Your task to perform on an android device: Search for a new bronzer Image 0: 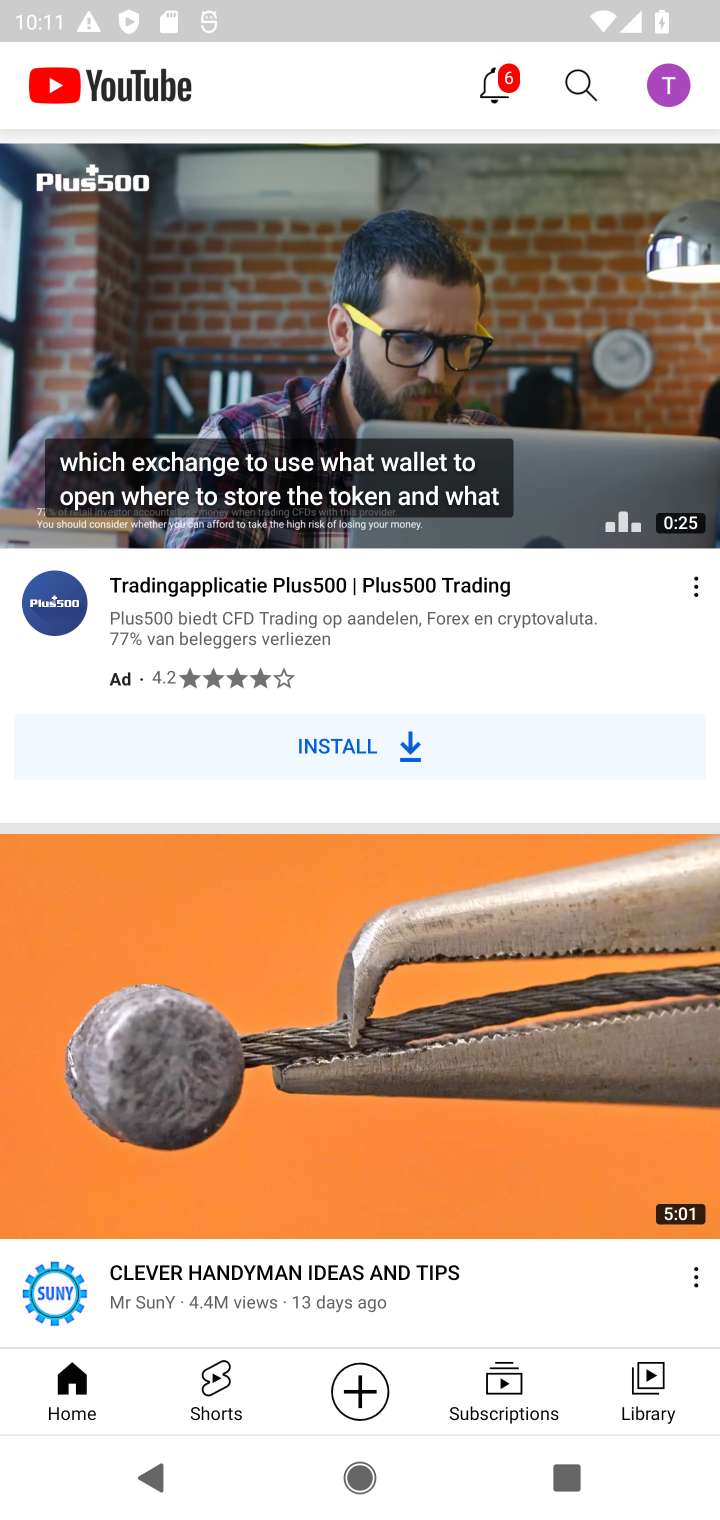
Step 0: press home button
Your task to perform on an android device: Search for a new bronzer Image 1: 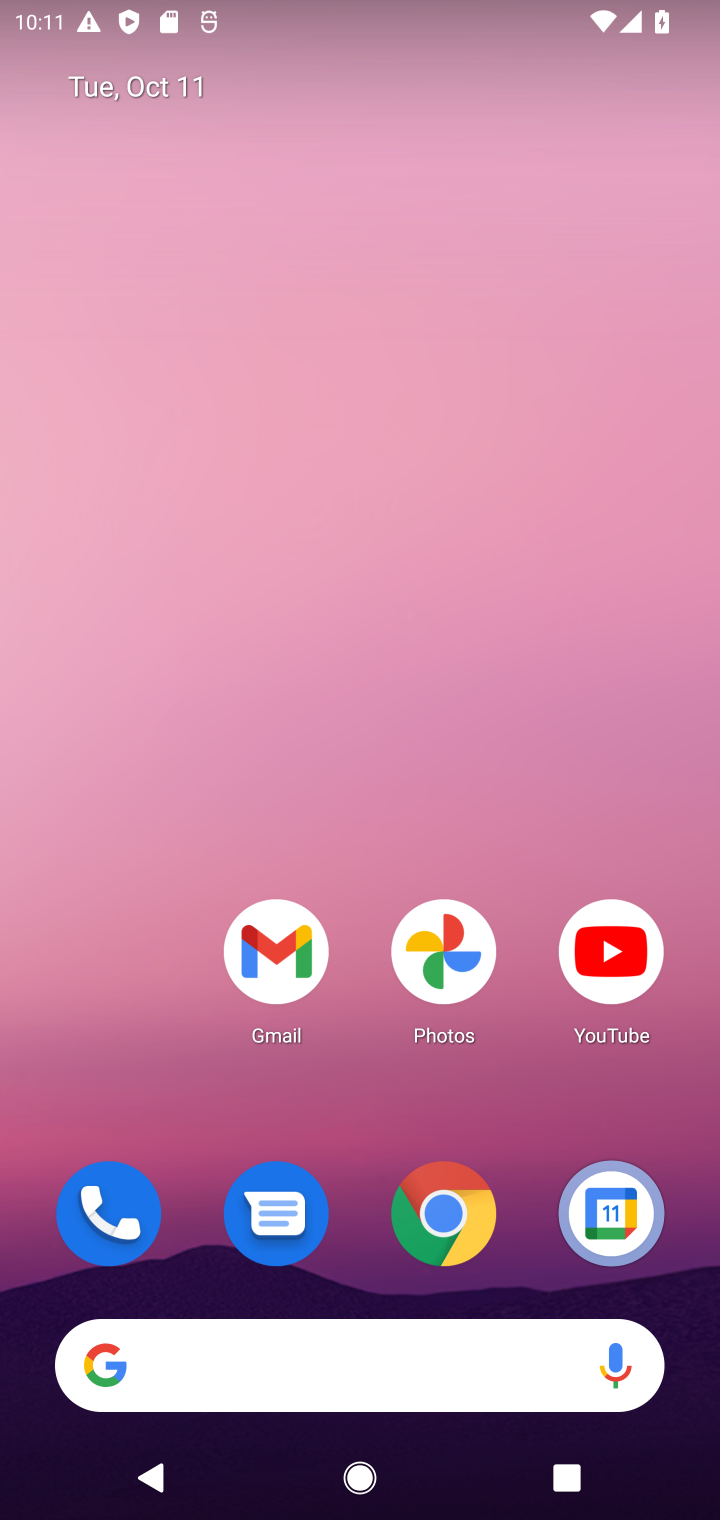
Step 1: click (411, 1242)
Your task to perform on an android device: Search for a new bronzer Image 2: 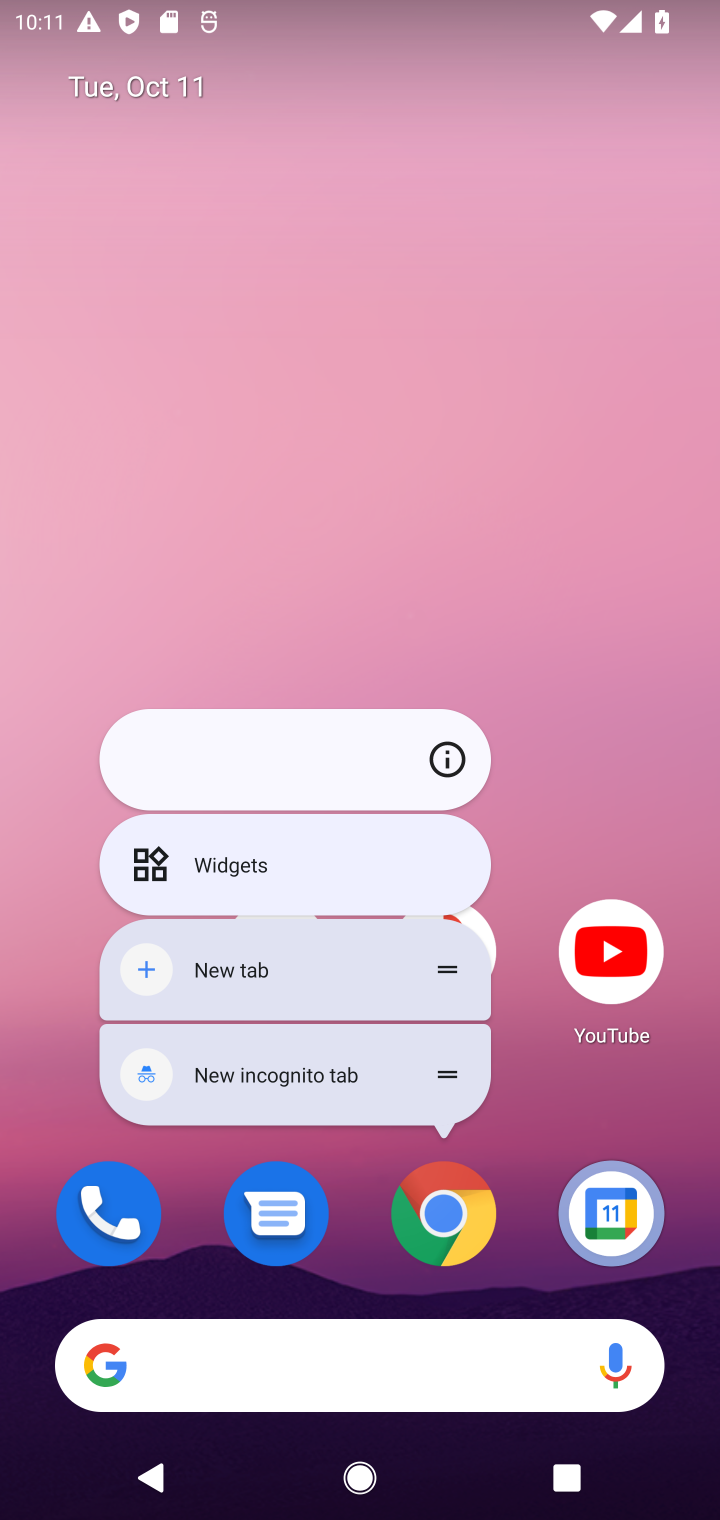
Step 2: click (441, 1200)
Your task to perform on an android device: Search for a new bronzer Image 3: 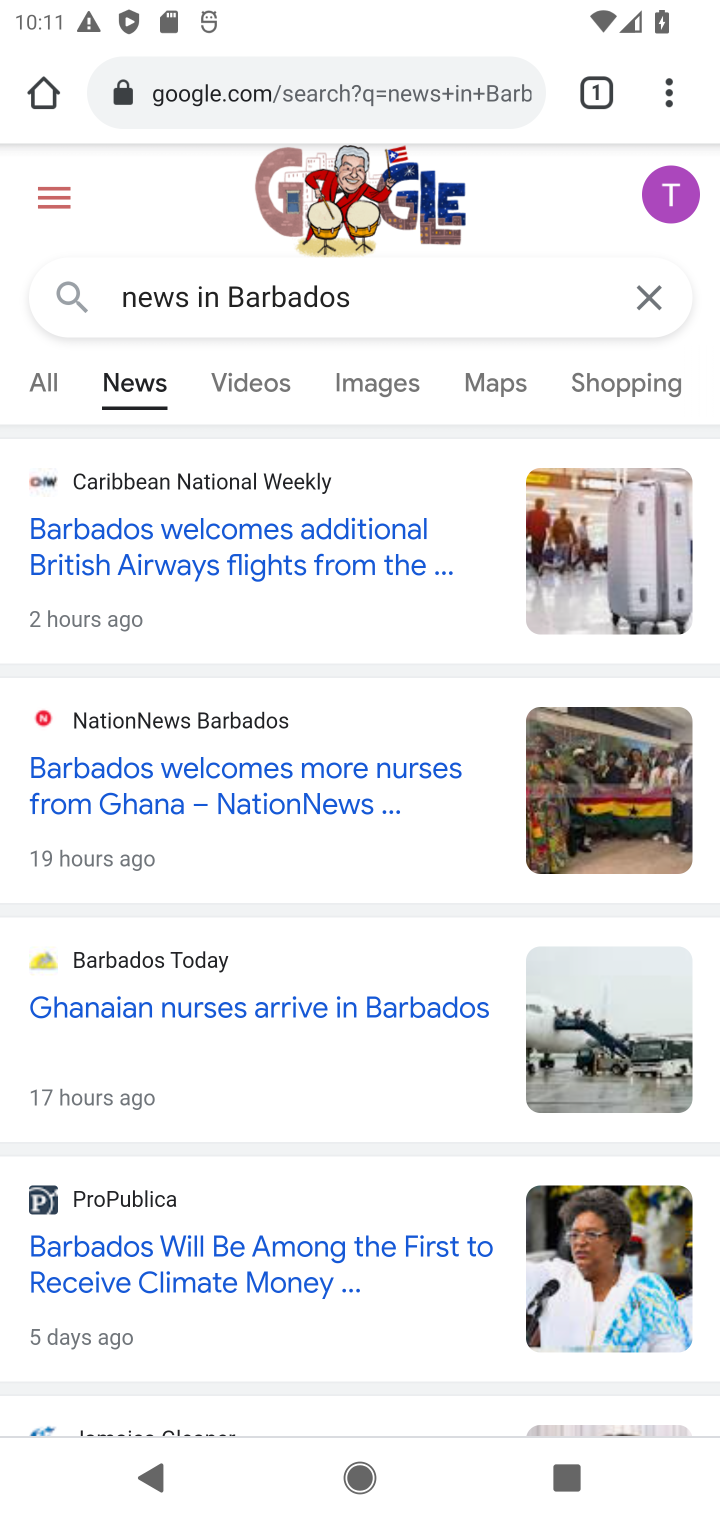
Step 3: click (418, 95)
Your task to perform on an android device: Search for a new bronzer Image 4: 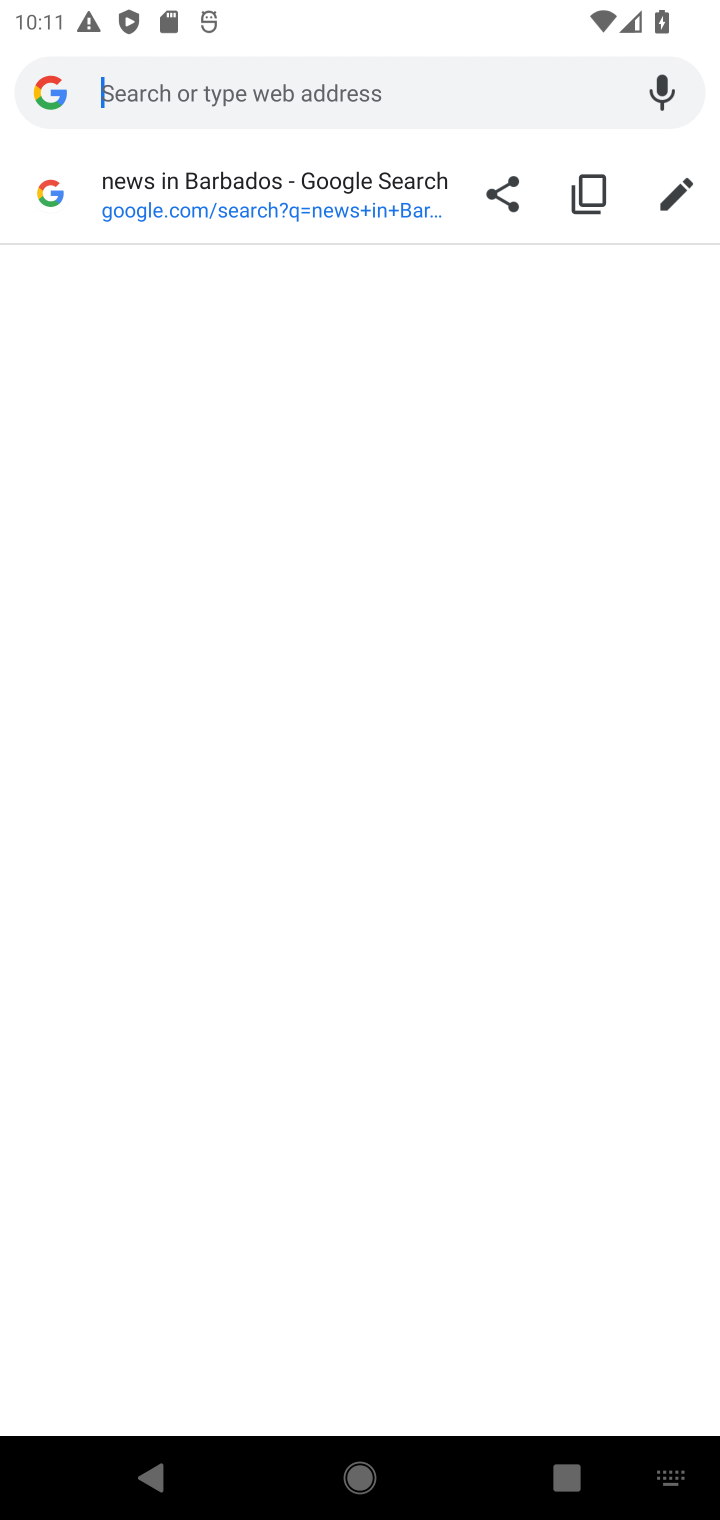
Step 4: type "new bronzer"
Your task to perform on an android device: Search for a new bronzer Image 5: 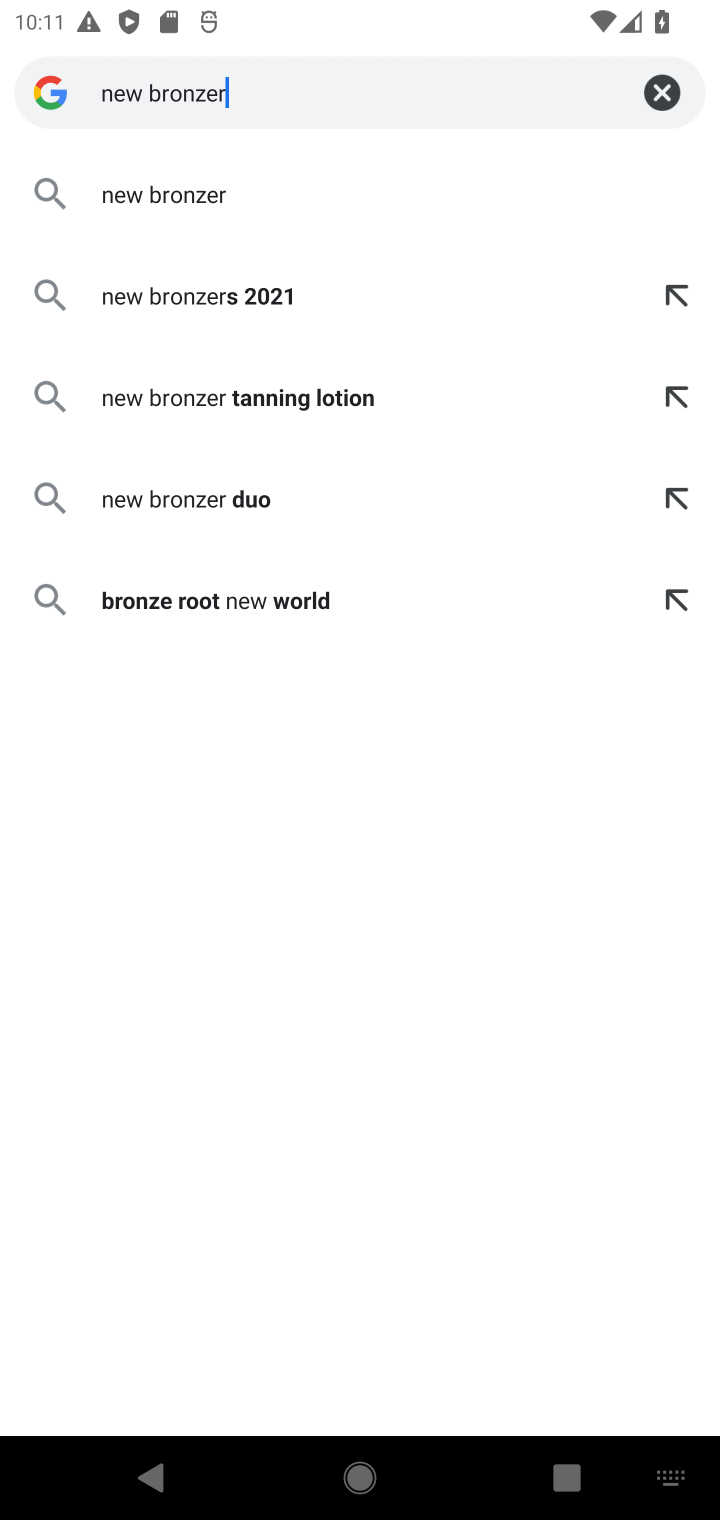
Step 5: click (248, 193)
Your task to perform on an android device: Search for a new bronzer Image 6: 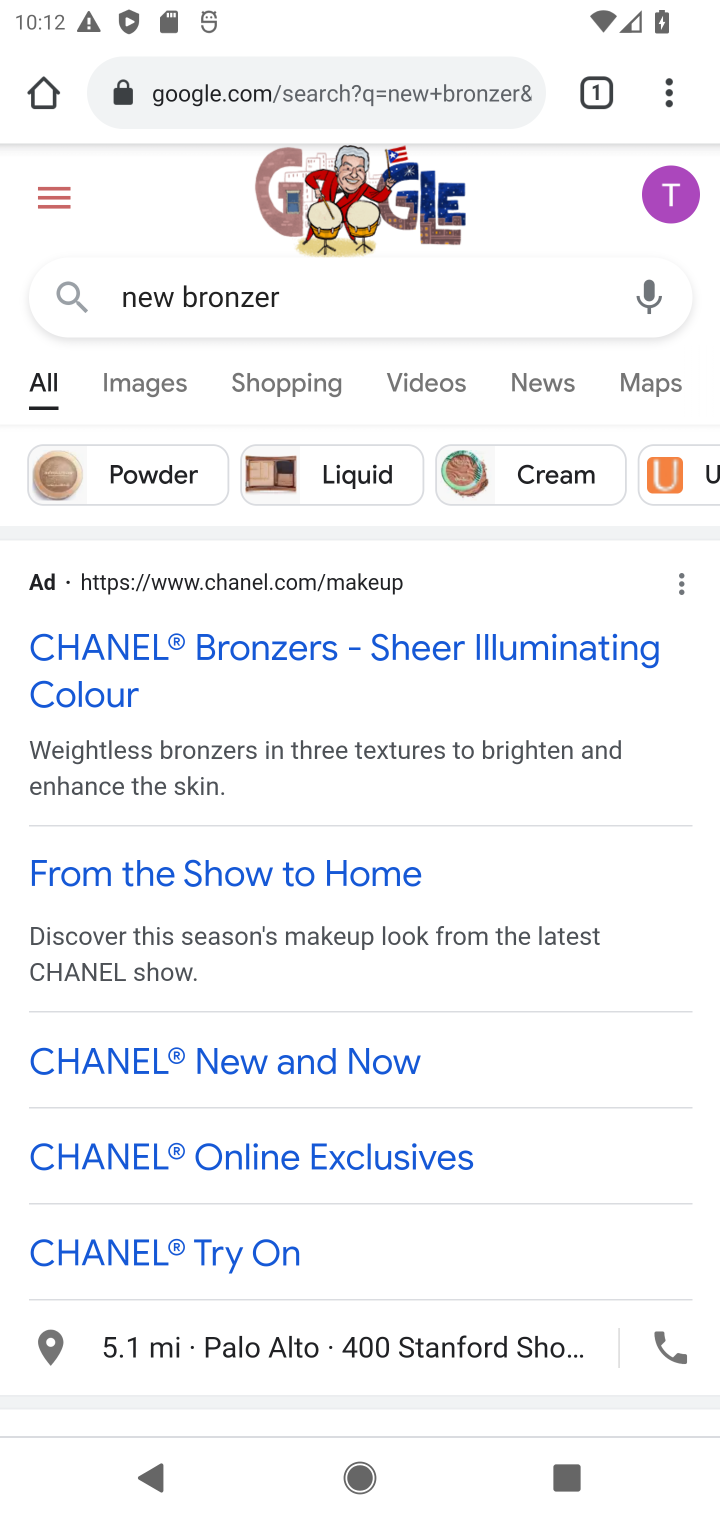
Step 6: task complete